Your task to perform on an android device: delete a single message in the gmail app Image 0: 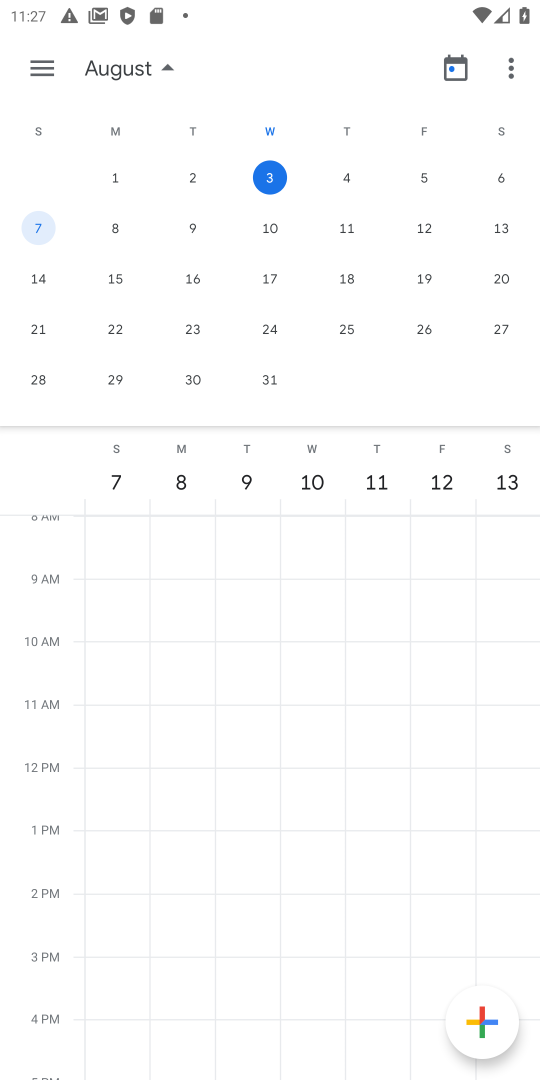
Step 0: press home button
Your task to perform on an android device: delete a single message in the gmail app Image 1: 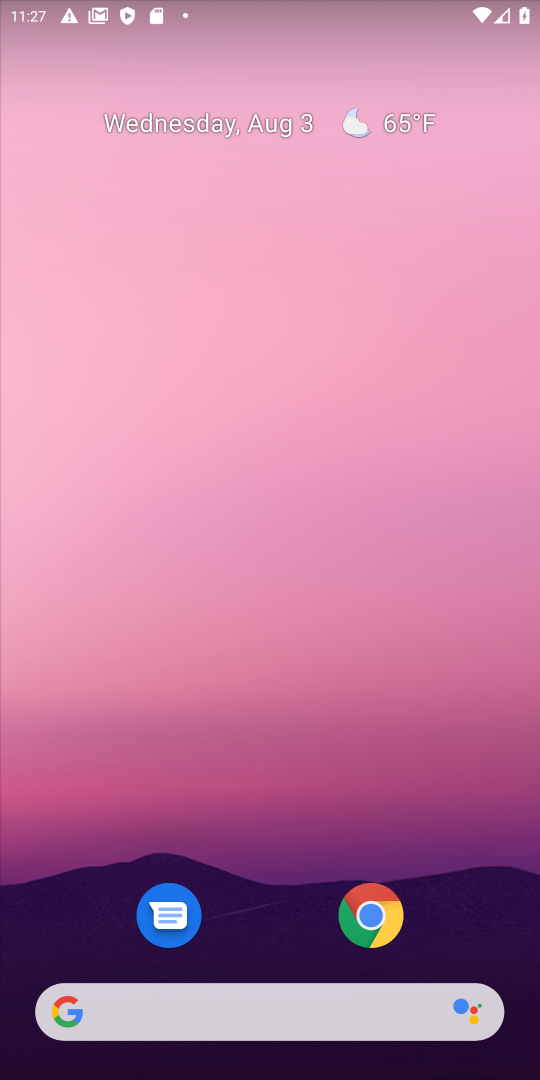
Step 1: drag from (257, 859) to (280, 296)
Your task to perform on an android device: delete a single message in the gmail app Image 2: 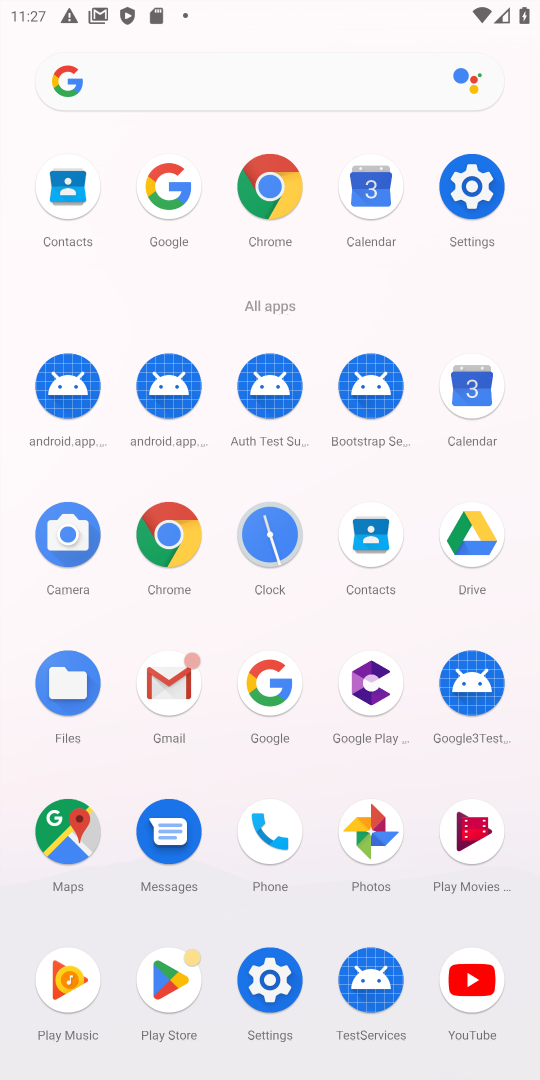
Step 2: click (165, 683)
Your task to perform on an android device: delete a single message in the gmail app Image 3: 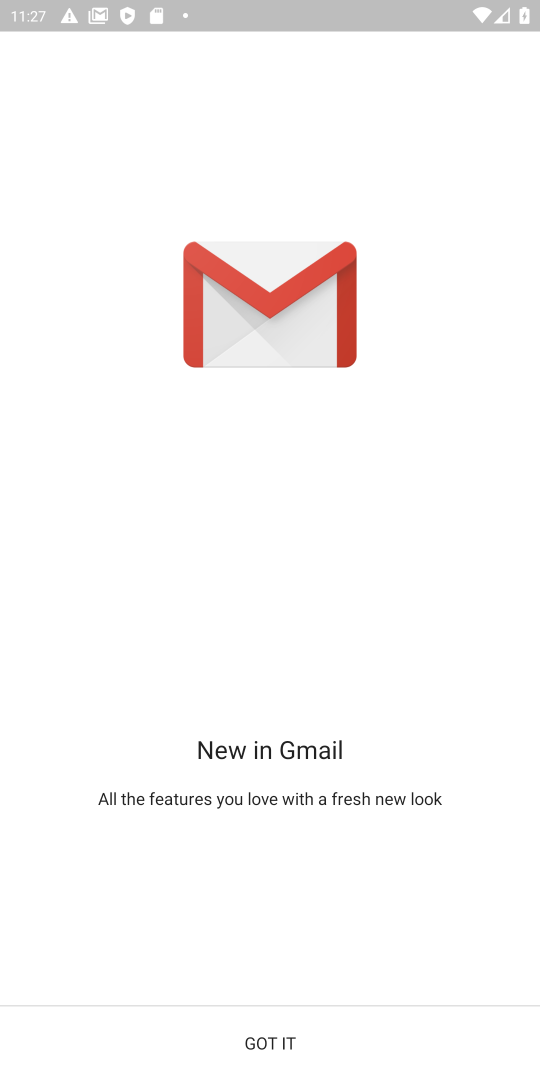
Step 3: click (283, 1039)
Your task to perform on an android device: delete a single message in the gmail app Image 4: 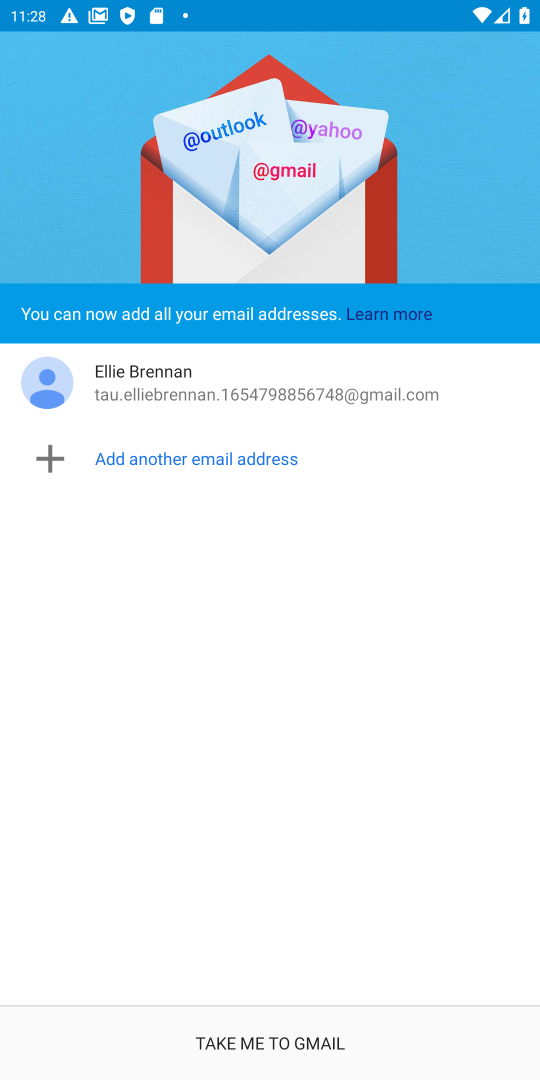
Step 4: click (283, 1039)
Your task to perform on an android device: delete a single message in the gmail app Image 5: 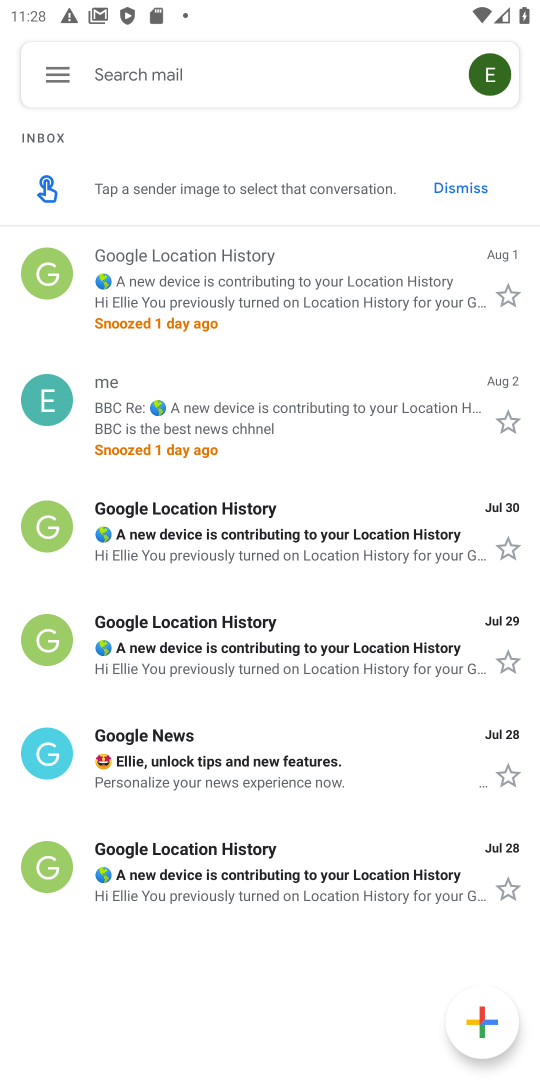
Step 5: click (360, 267)
Your task to perform on an android device: delete a single message in the gmail app Image 6: 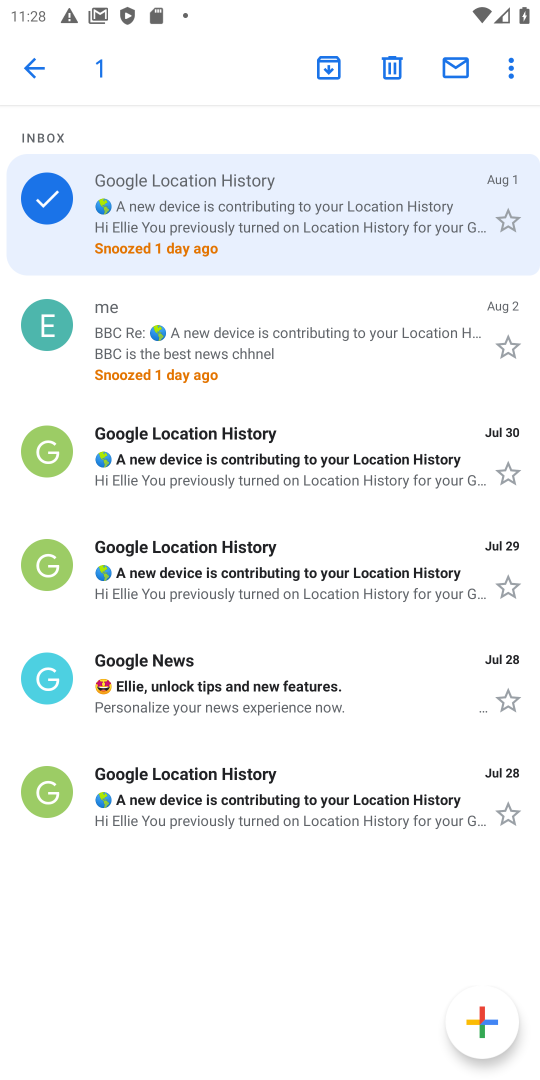
Step 6: click (401, 65)
Your task to perform on an android device: delete a single message in the gmail app Image 7: 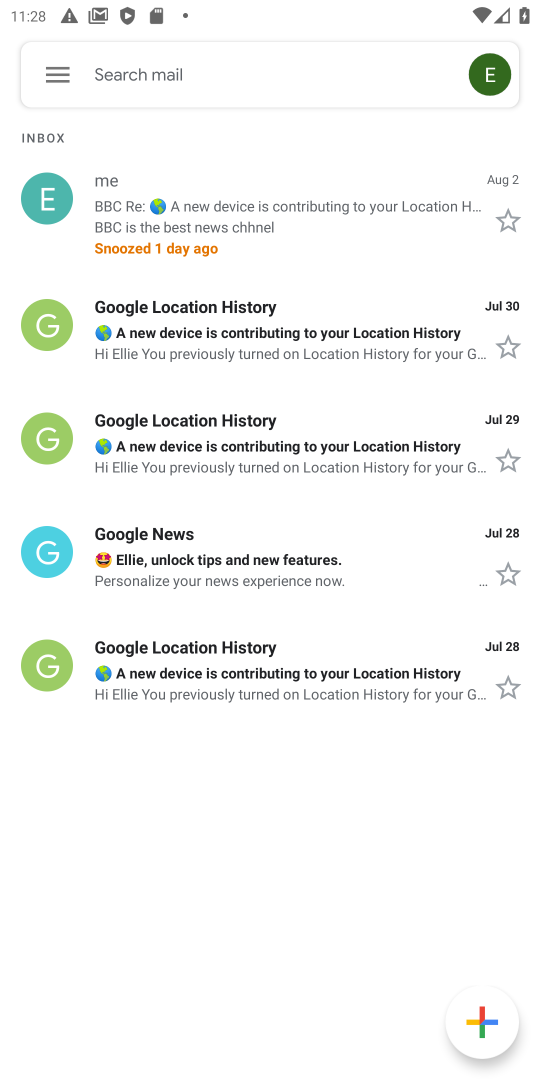
Step 7: task complete